Your task to perform on an android device: Open Chrome and go to the settings page Image 0: 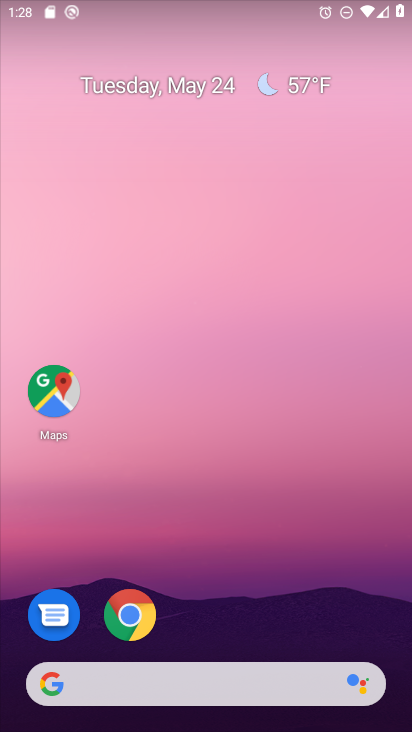
Step 0: click (107, 622)
Your task to perform on an android device: Open Chrome and go to the settings page Image 1: 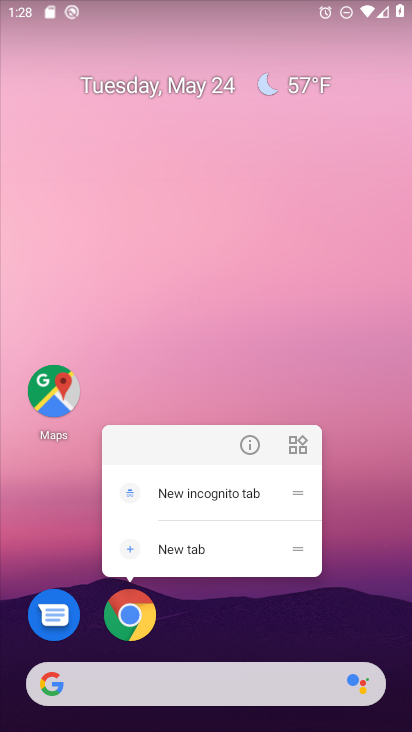
Step 1: click (136, 618)
Your task to perform on an android device: Open Chrome and go to the settings page Image 2: 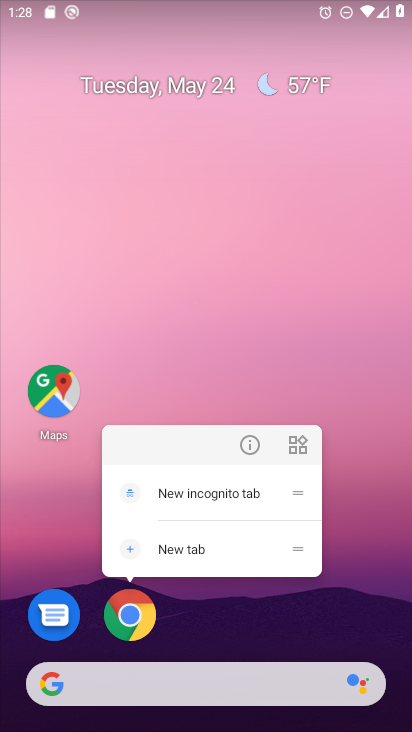
Step 2: click (136, 620)
Your task to perform on an android device: Open Chrome and go to the settings page Image 3: 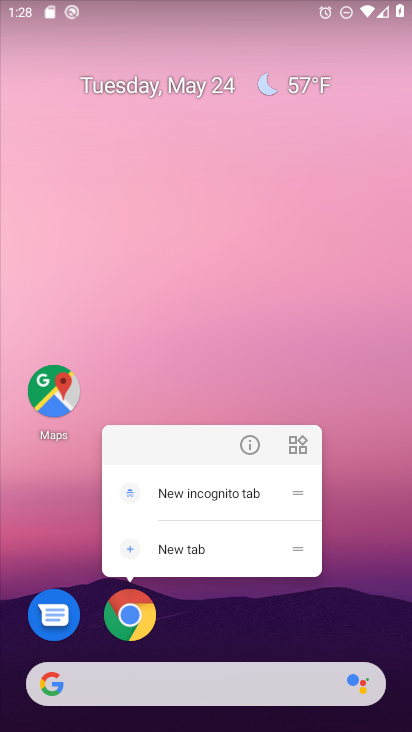
Step 3: click (136, 618)
Your task to perform on an android device: Open Chrome and go to the settings page Image 4: 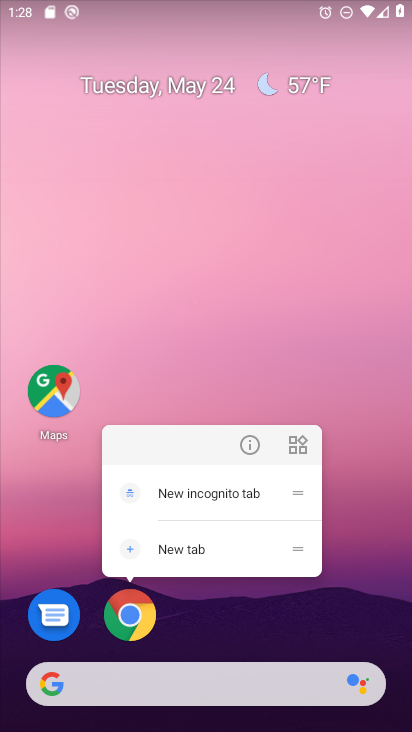
Step 4: click (135, 609)
Your task to perform on an android device: Open Chrome and go to the settings page Image 5: 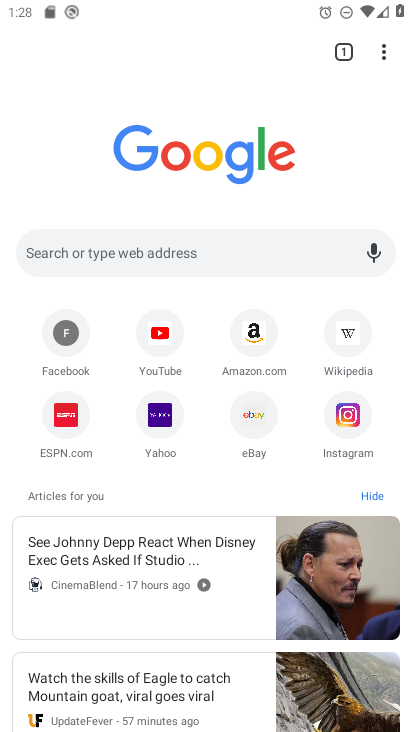
Step 5: click (382, 52)
Your task to perform on an android device: Open Chrome and go to the settings page Image 6: 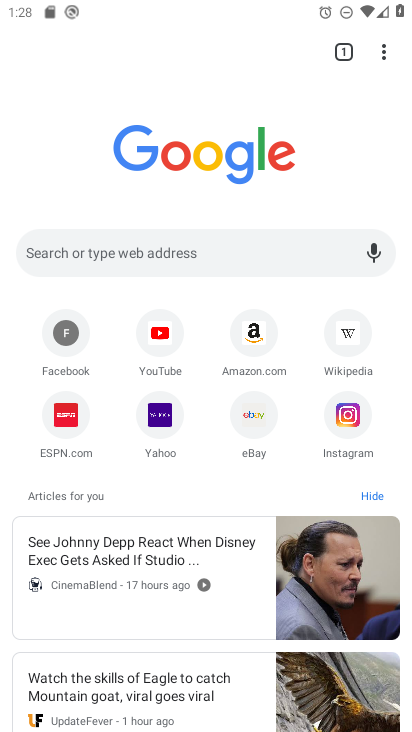
Step 6: click (382, 52)
Your task to perform on an android device: Open Chrome and go to the settings page Image 7: 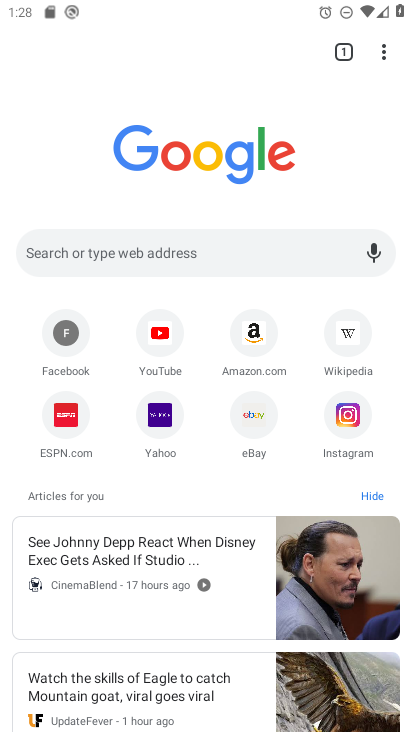
Step 7: click (381, 50)
Your task to perform on an android device: Open Chrome and go to the settings page Image 8: 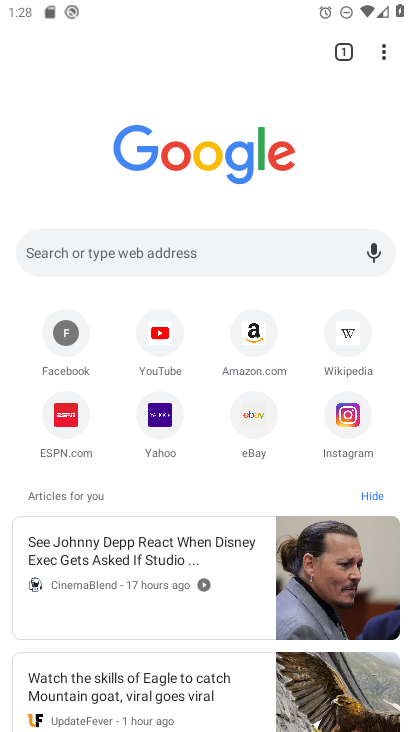
Step 8: click (393, 53)
Your task to perform on an android device: Open Chrome and go to the settings page Image 9: 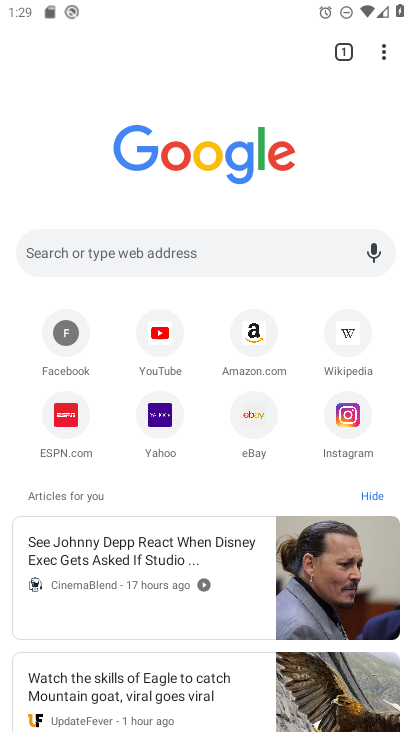
Step 9: click (380, 42)
Your task to perform on an android device: Open Chrome and go to the settings page Image 10: 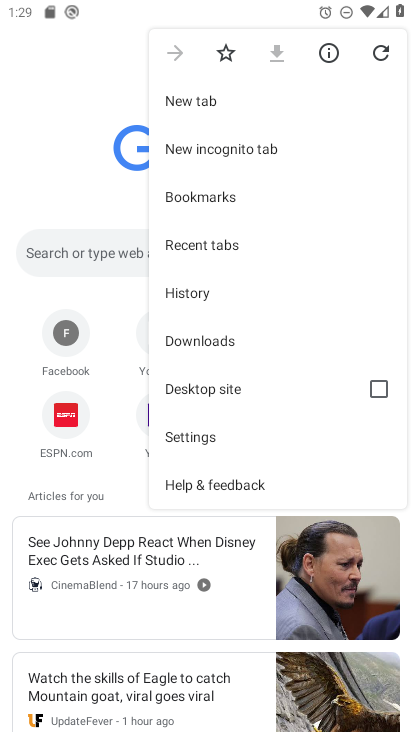
Step 10: click (202, 443)
Your task to perform on an android device: Open Chrome and go to the settings page Image 11: 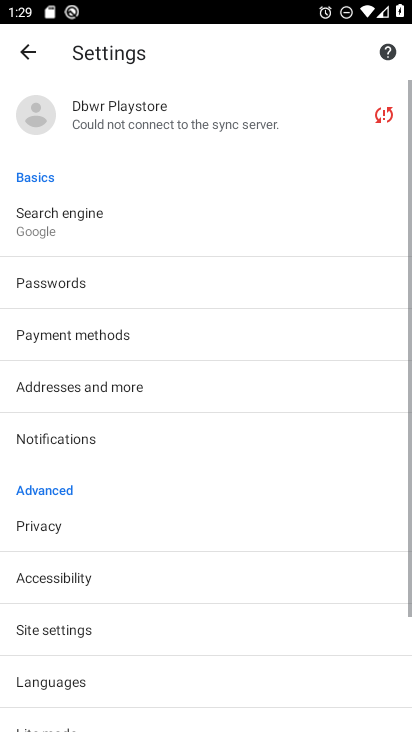
Step 11: task complete